Your task to perform on an android device: Go to CNN.com Image 0: 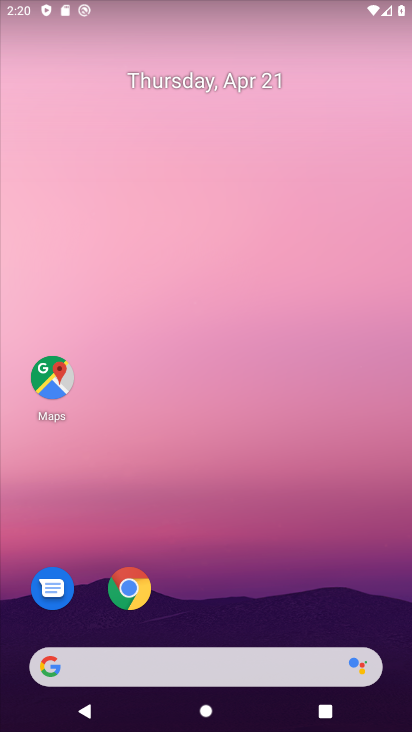
Step 0: click (249, 124)
Your task to perform on an android device: Go to CNN.com Image 1: 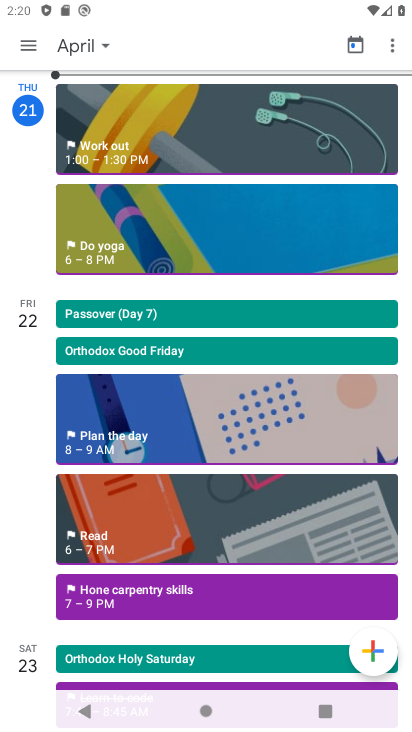
Step 1: press home button
Your task to perform on an android device: Go to CNN.com Image 2: 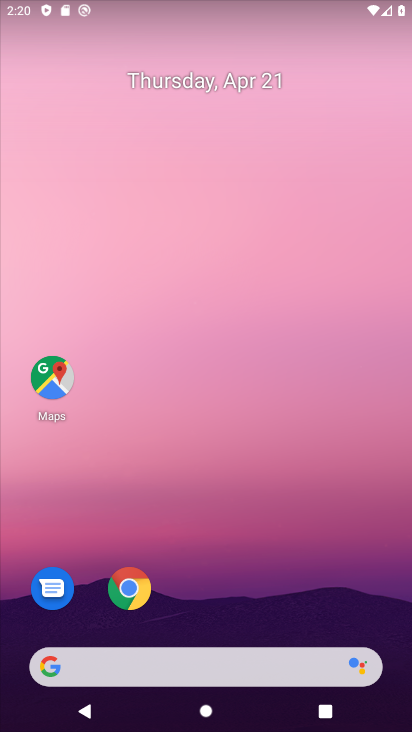
Step 2: drag from (233, 675) to (174, 278)
Your task to perform on an android device: Go to CNN.com Image 3: 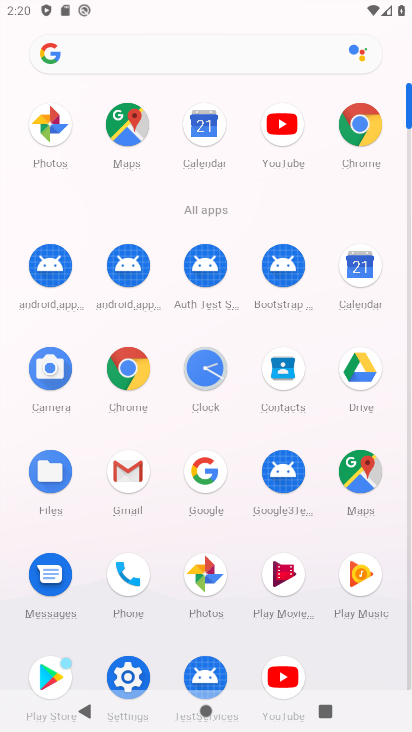
Step 3: click (125, 373)
Your task to perform on an android device: Go to CNN.com Image 4: 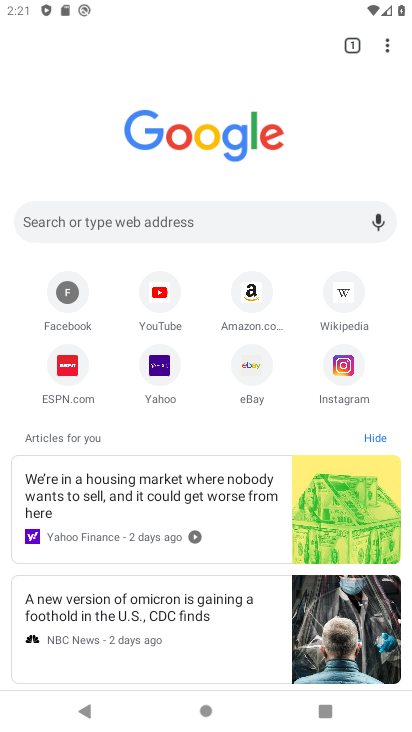
Step 4: click (187, 214)
Your task to perform on an android device: Go to CNN.com Image 5: 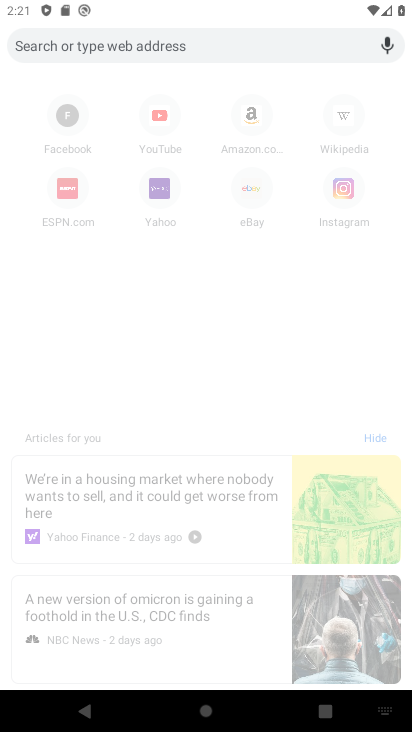
Step 5: type "cnn.com"
Your task to perform on an android device: Go to CNN.com Image 6: 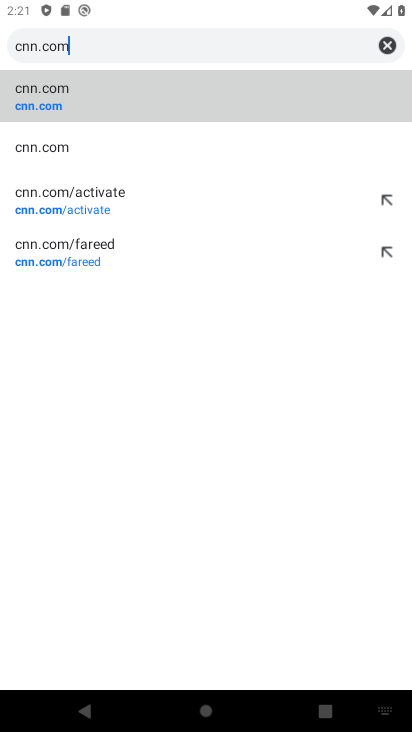
Step 6: click (110, 95)
Your task to perform on an android device: Go to CNN.com Image 7: 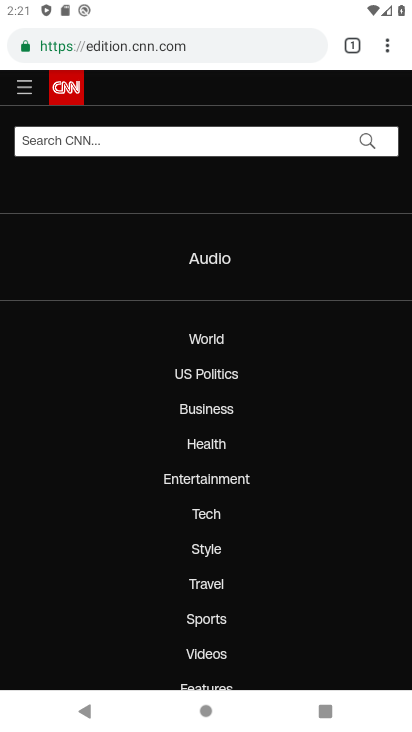
Step 7: task complete